Your task to perform on an android device: Search for flights from NYC to Tokyo Image 0: 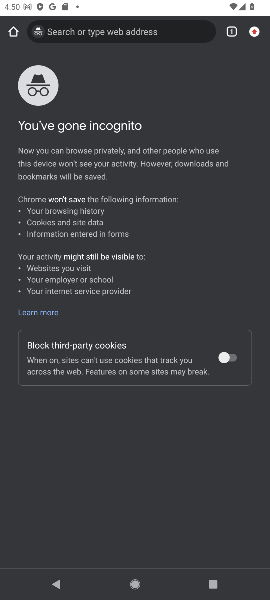
Step 0: press home button
Your task to perform on an android device: Search for flights from NYC to Tokyo Image 1: 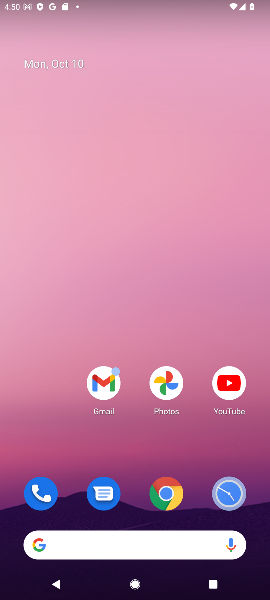
Step 1: click (184, 547)
Your task to perform on an android device: Search for flights from NYC to Tokyo Image 2: 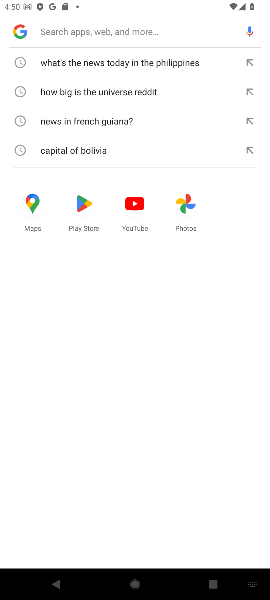
Step 2: type "flights from NYC to Tokyo"
Your task to perform on an android device: Search for flights from NYC to Tokyo Image 3: 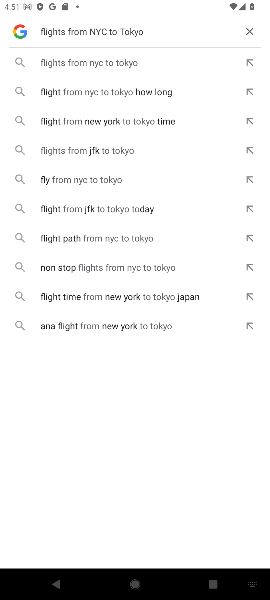
Step 3: click (72, 68)
Your task to perform on an android device: Search for flights from NYC to Tokyo Image 4: 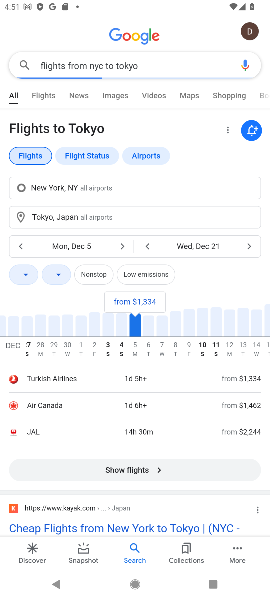
Step 4: task complete